Your task to perform on an android device: Open location settings Image 0: 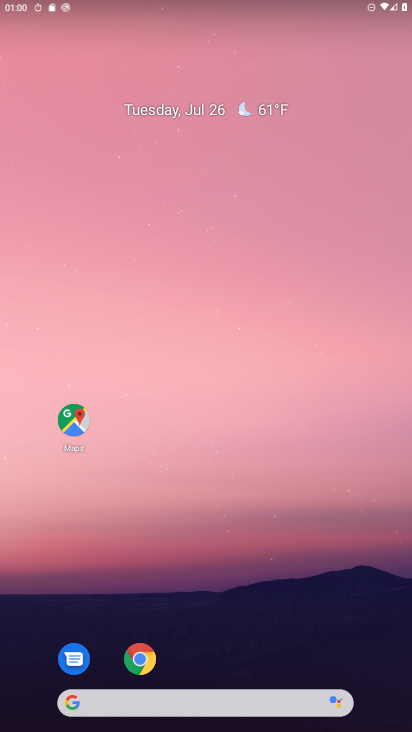
Step 0: drag from (92, 628) to (229, 281)
Your task to perform on an android device: Open location settings Image 1: 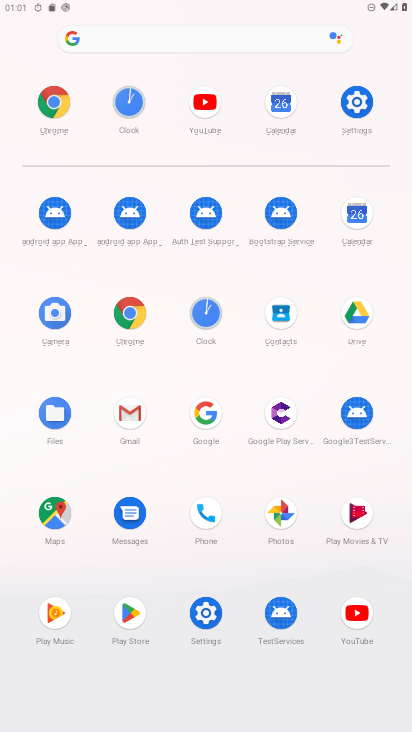
Step 1: click (62, 516)
Your task to perform on an android device: Open location settings Image 2: 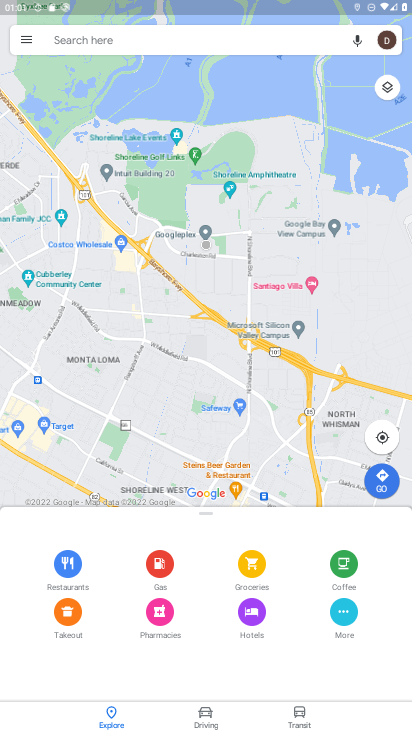
Step 2: click (18, 45)
Your task to perform on an android device: Open location settings Image 3: 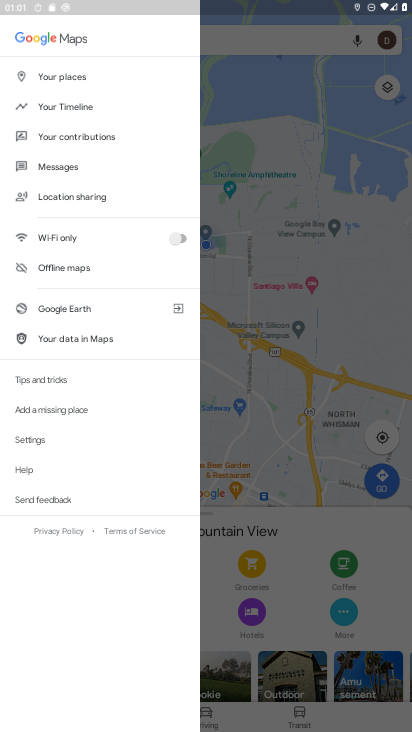
Step 3: click (27, 438)
Your task to perform on an android device: Open location settings Image 4: 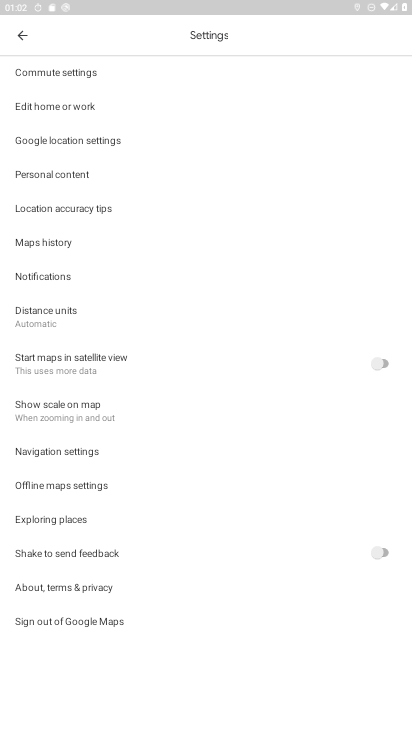
Step 4: click (45, 140)
Your task to perform on an android device: Open location settings Image 5: 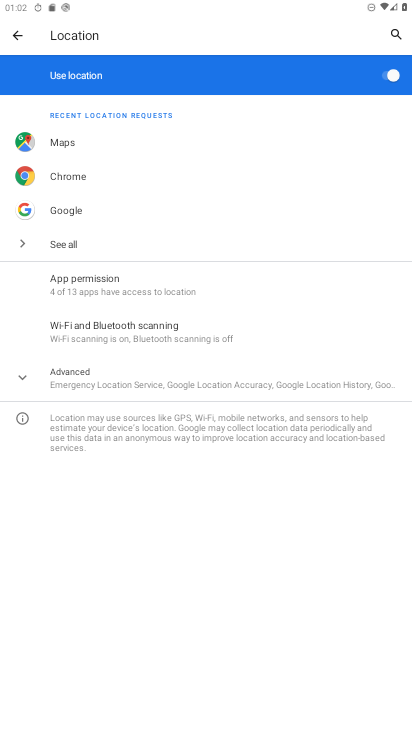
Step 5: task complete